Your task to perform on an android device: find snoozed emails in the gmail app Image 0: 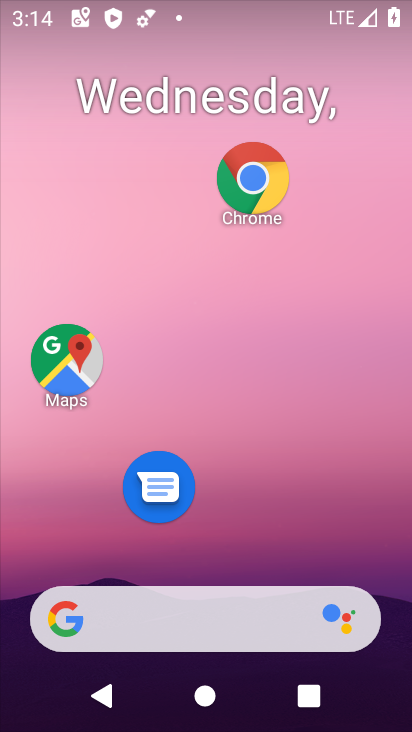
Step 0: drag from (251, 568) to (252, 48)
Your task to perform on an android device: find snoozed emails in the gmail app Image 1: 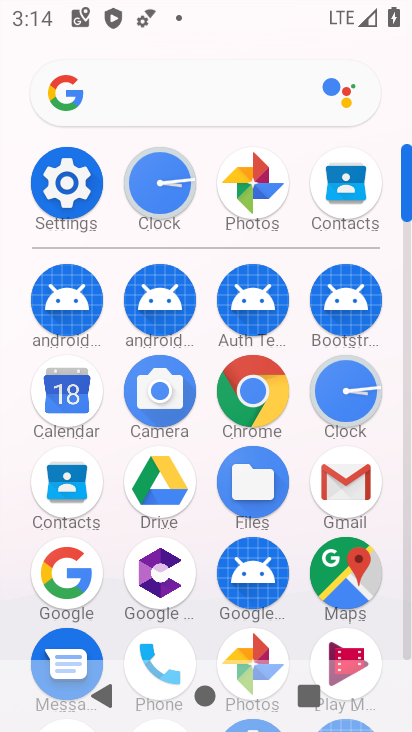
Step 1: click (343, 478)
Your task to perform on an android device: find snoozed emails in the gmail app Image 2: 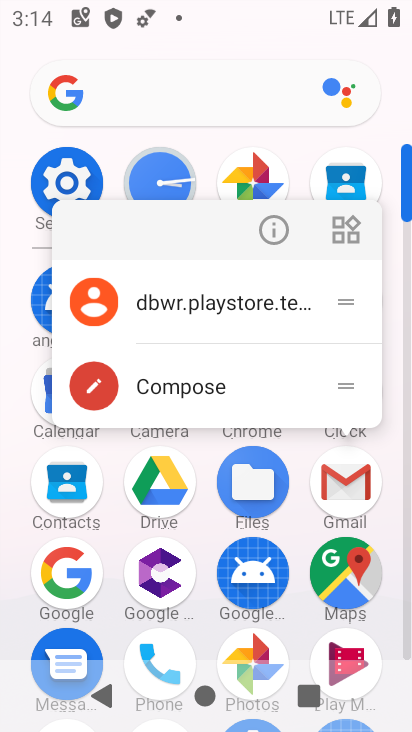
Step 2: click (343, 486)
Your task to perform on an android device: find snoozed emails in the gmail app Image 3: 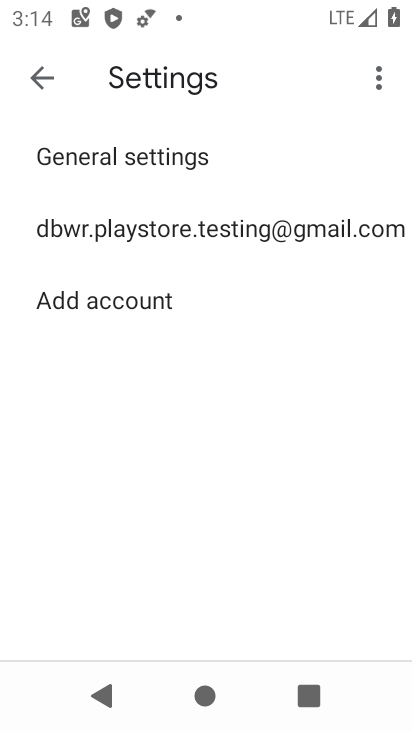
Step 3: click (45, 83)
Your task to perform on an android device: find snoozed emails in the gmail app Image 4: 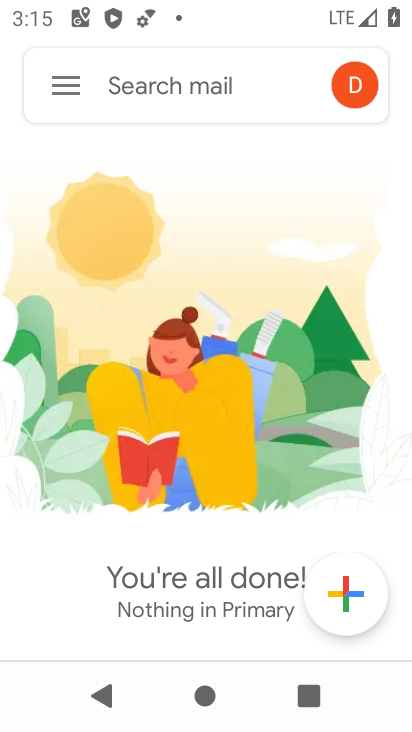
Step 4: click (59, 88)
Your task to perform on an android device: find snoozed emails in the gmail app Image 5: 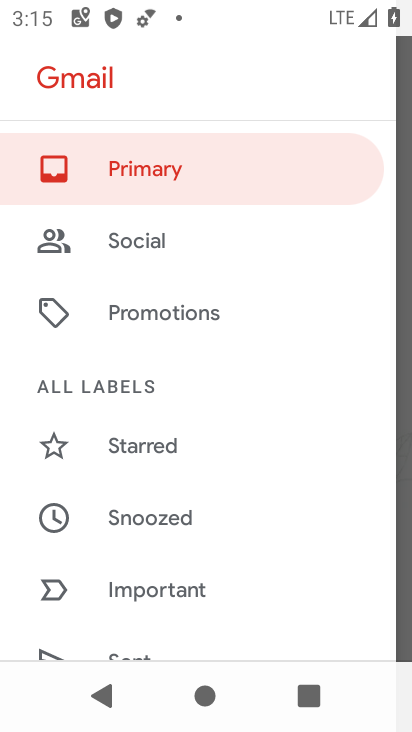
Step 5: drag from (154, 643) to (233, 350)
Your task to perform on an android device: find snoozed emails in the gmail app Image 6: 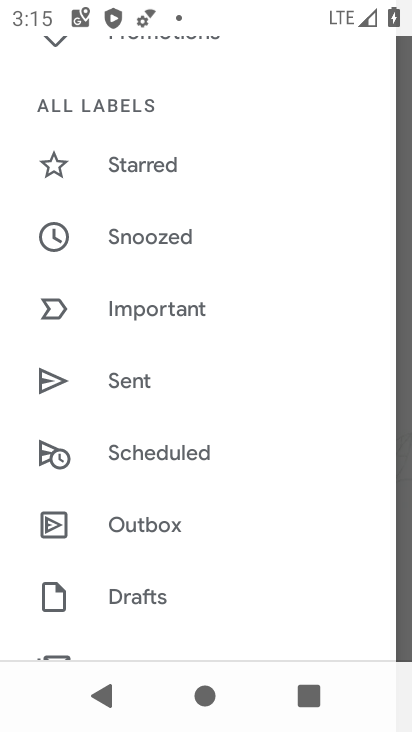
Step 6: drag from (178, 589) to (203, 553)
Your task to perform on an android device: find snoozed emails in the gmail app Image 7: 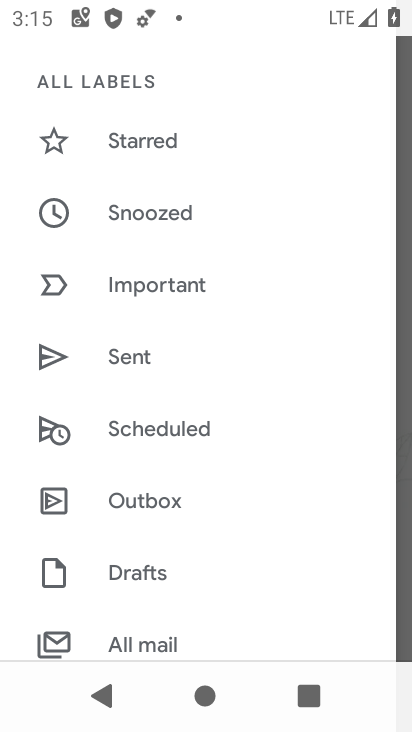
Step 7: click (164, 221)
Your task to perform on an android device: find snoozed emails in the gmail app Image 8: 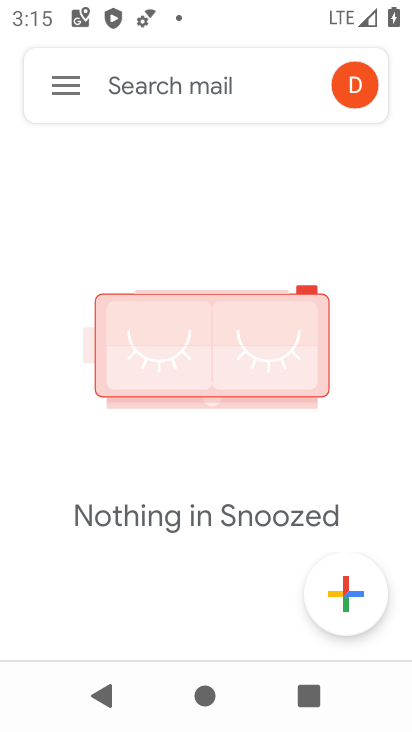
Step 8: task complete